Your task to perform on an android device: toggle javascript in the chrome app Image 0: 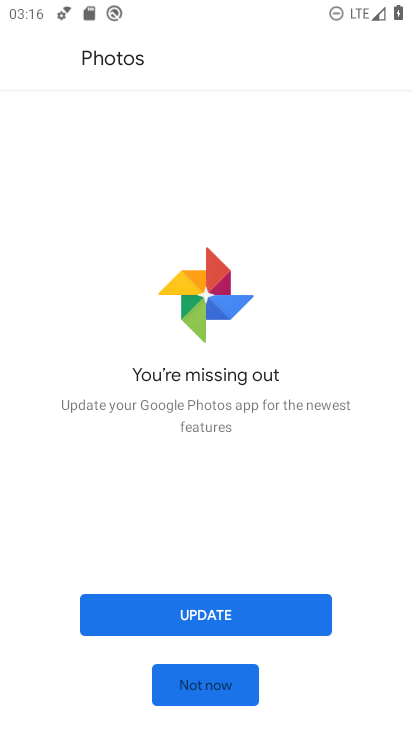
Step 0: press home button
Your task to perform on an android device: toggle javascript in the chrome app Image 1: 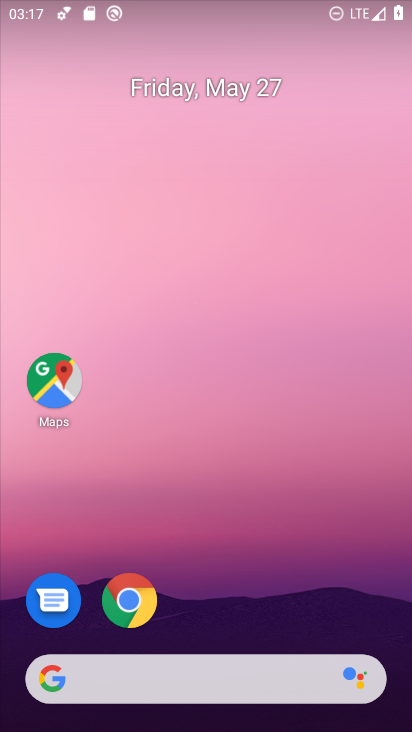
Step 1: click (133, 602)
Your task to perform on an android device: toggle javascript in the chrome app Image 2: 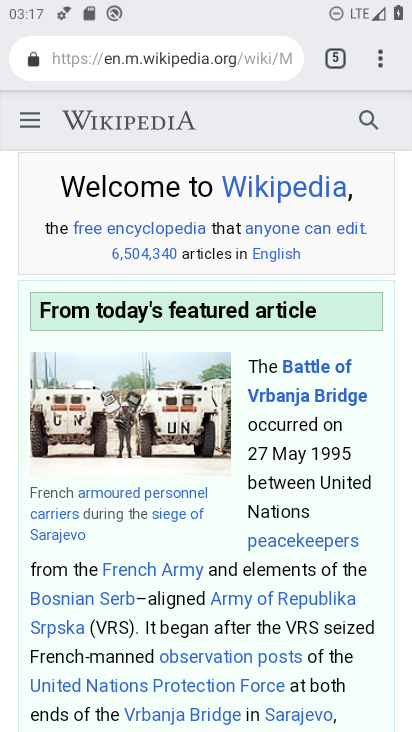
Step 2: click (382, 65)
Your task to perform on an android device: toggle javascript in the chrome app Image 3: 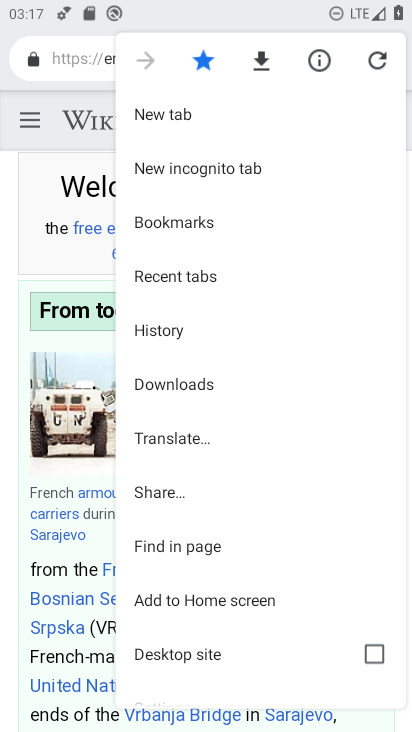
Step 3: drag from (213, 665) to (202, 246)
Your task to perform on an android device: toggle javascript in the chrome app Image 4: 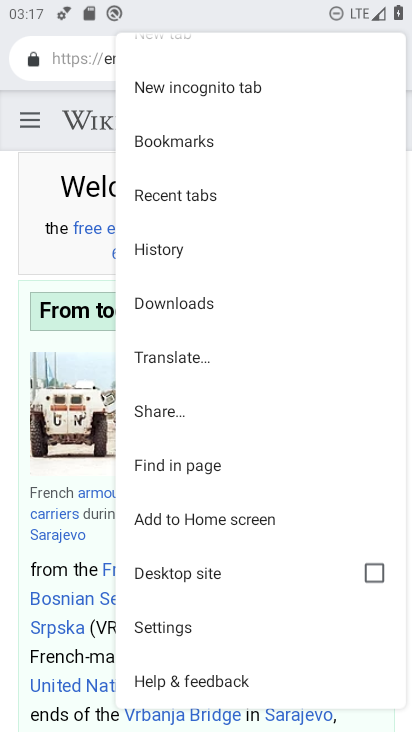
Step 4: click (172, 623)
Your task to perform on an android device: toggle javascript in the chrome app Image 5: 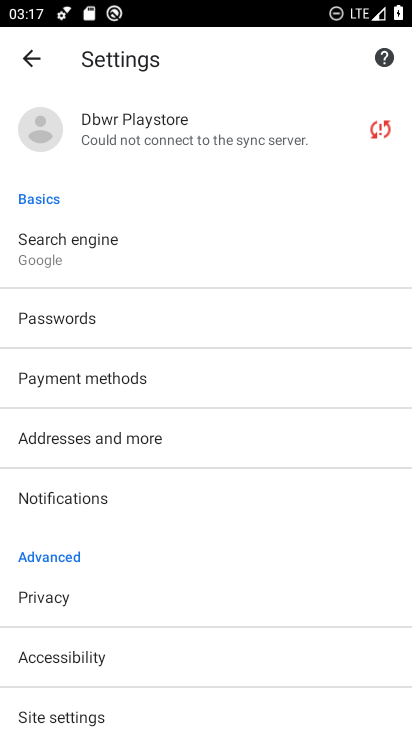
Step 5: drag from (164, 705) to (185, 323)
Your task to perform on an android device: toggle javascript in the chrome app Image 6: 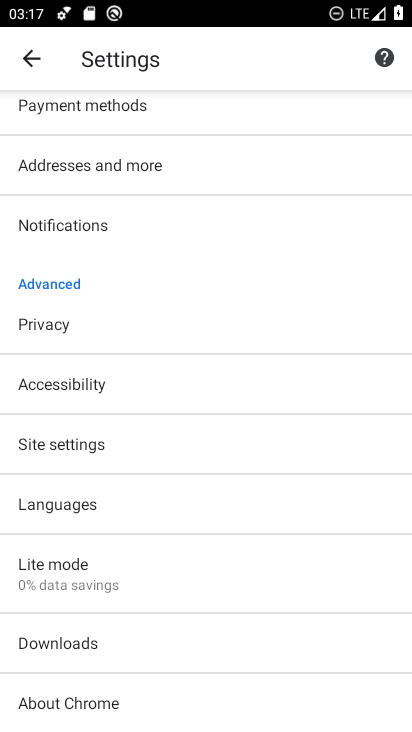
Step 6: click (63, 446)
Your task to perform on an android device: toggle javascript in the chrome app Image 7: 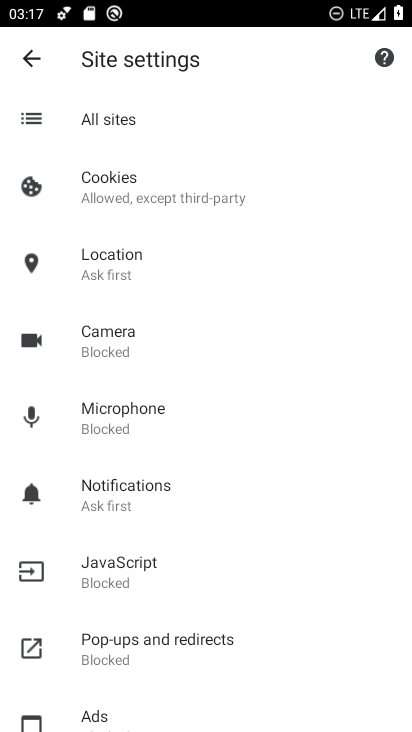
Step 7: click (100, 569)
Your task to perform on an android device: toggle javascript in the chrome app Image 8: 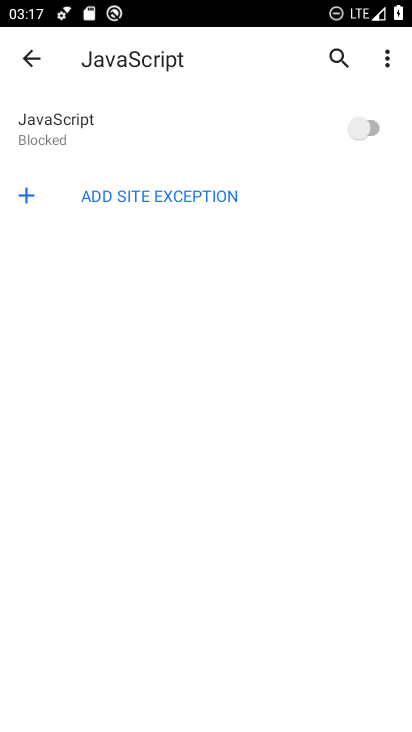
Step 8: click (373, 123)
Your task to perform on an android device: toggle javascript in the chrome app Image 9: 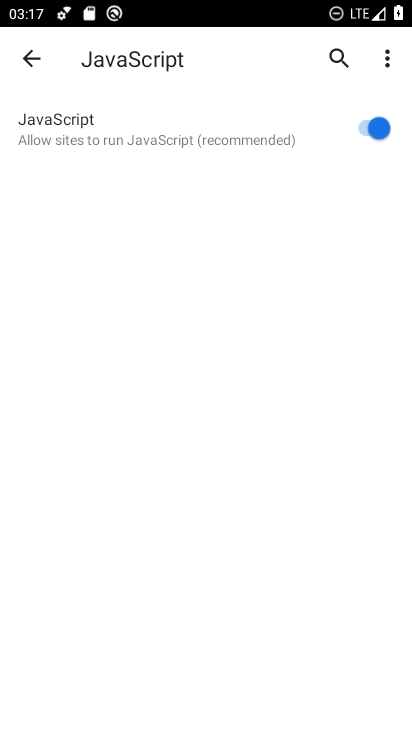
Step 9: task complete